Your task to perform on an android device: Open calendar and show me the first week of next month Image 0: 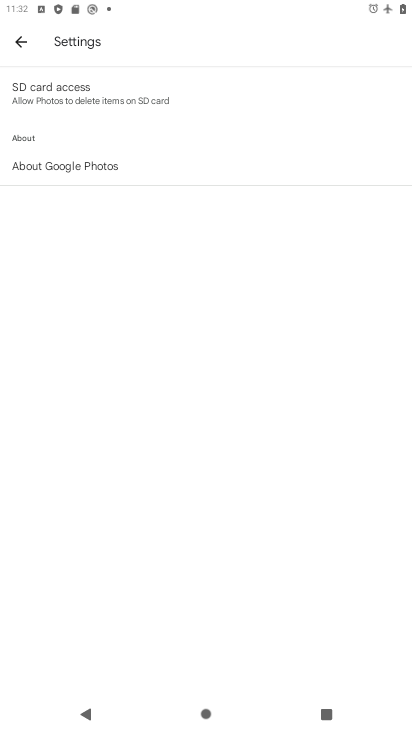
Step 0: press home button
Your task to perform on an android device: Open calendar and show me the first week of next month Image 1: 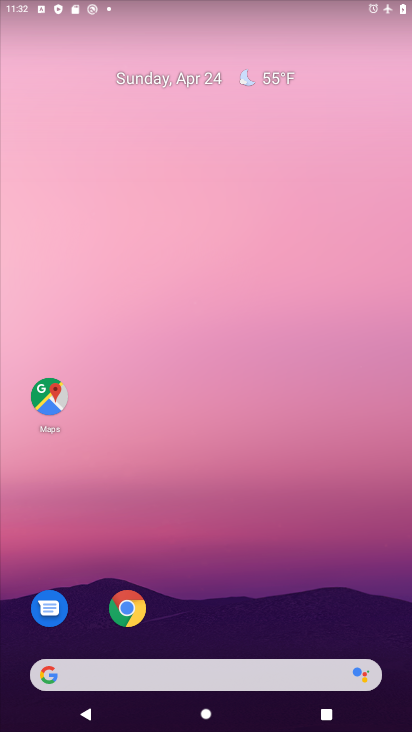
Step 1: drag from (376, 635) to (355, 30)
Your task to perform on an android device: Open calendar and show me the first week of next month Image 2: 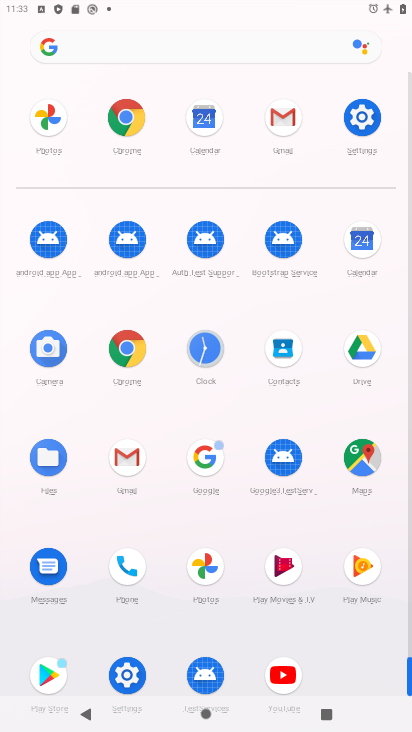
Step 2: click (410, 642)
Your task to perform on an android device: Open calendar and show me the first week of next month Image 3: 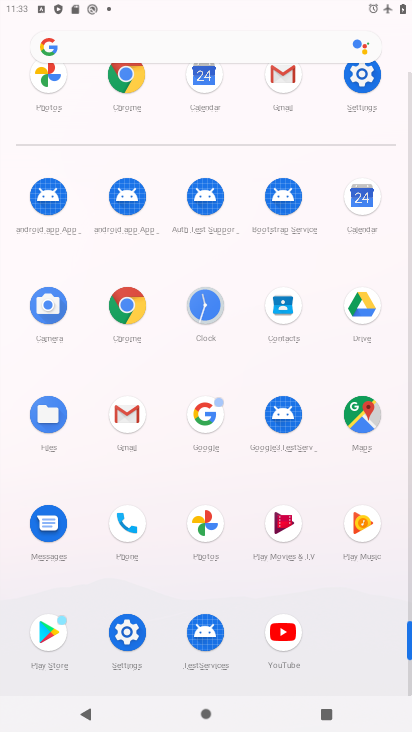
Step 3: click (363, 199)
Your task to perform on an android device: Open calendar and show me the first week of next month Image 4: 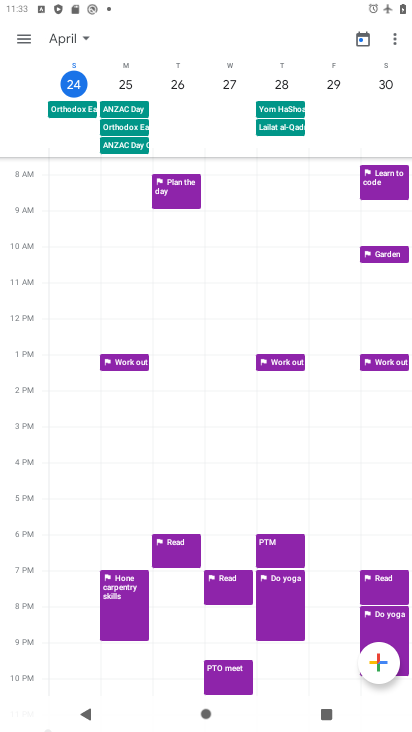
Step 4: click (21, 37)
Your task to perform on an android device: Open calendar and show me the first week of next month Image 5: 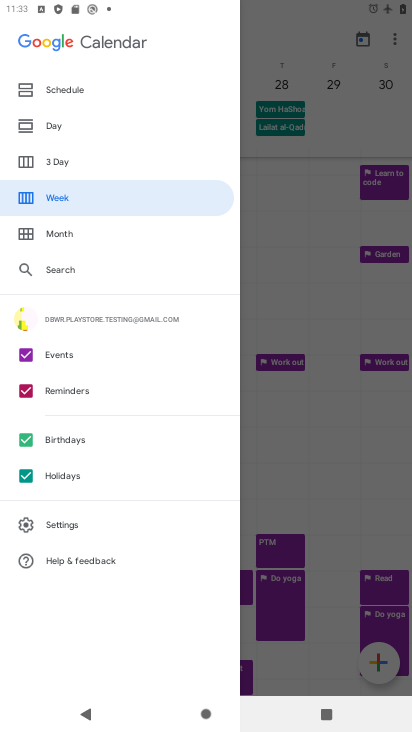
Step 5: click (99, 195)
Your task to perform on an android device: Open calendar and show me the first week of next month Image 6: 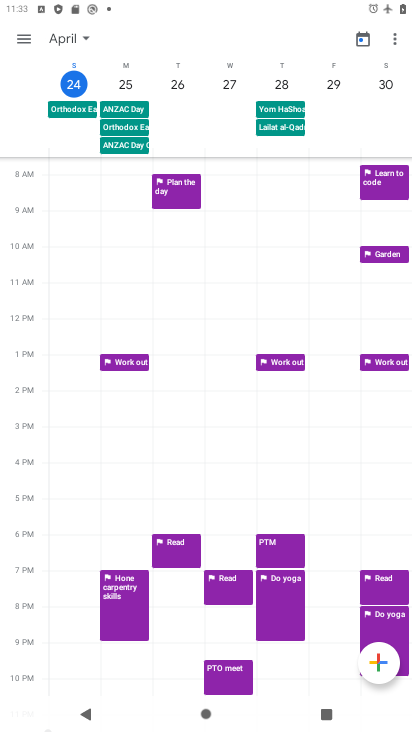
Step 6: click (83, 38)
Your task to perform on an android device: Open calendar and show me the first week of next month Image 7: 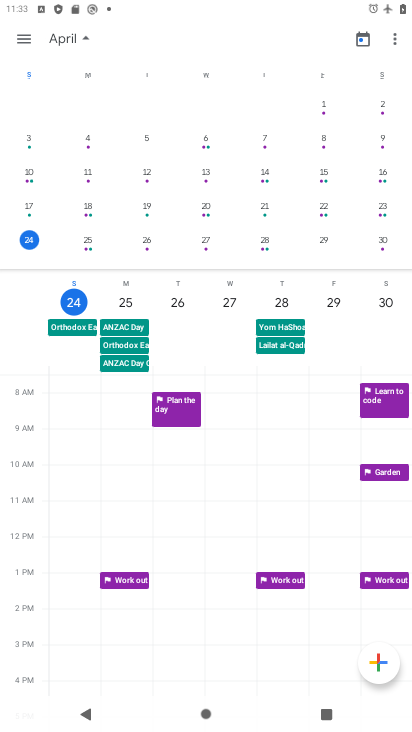
Step 7: task complete